Your task to perform on an android device: Search for "amazon basics triple a" on target.com, select the first entry, and add it to the cart. Image 0: 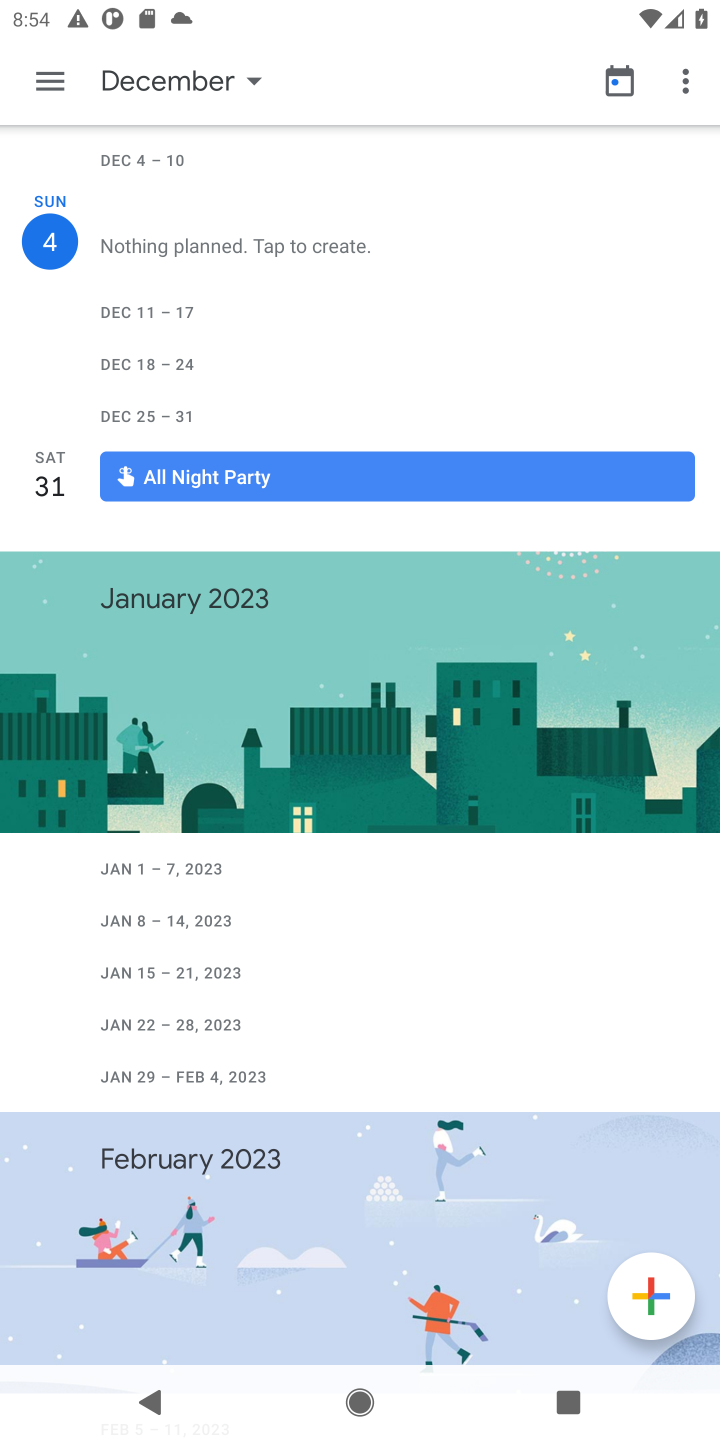
Step 0: press home button
Your task to perform on an android device: Search for "amazon basics triple a" on target.com, select the first entry, and add it to the cart. Image 1: 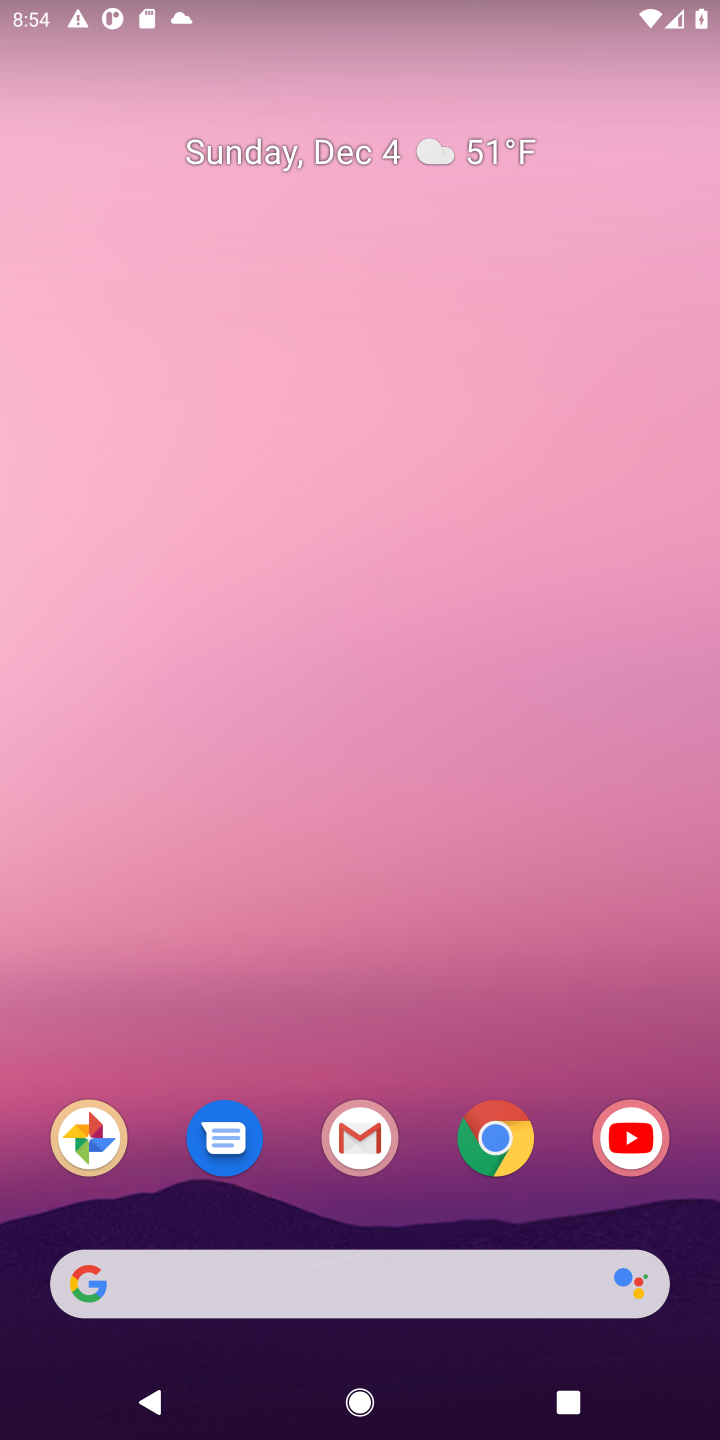
Step 1: click (507, 1135)
Your task to perform on an android device: Search for "amazon basics triple a" on target.com, select the first entry, and add it to the cart. Image 2: 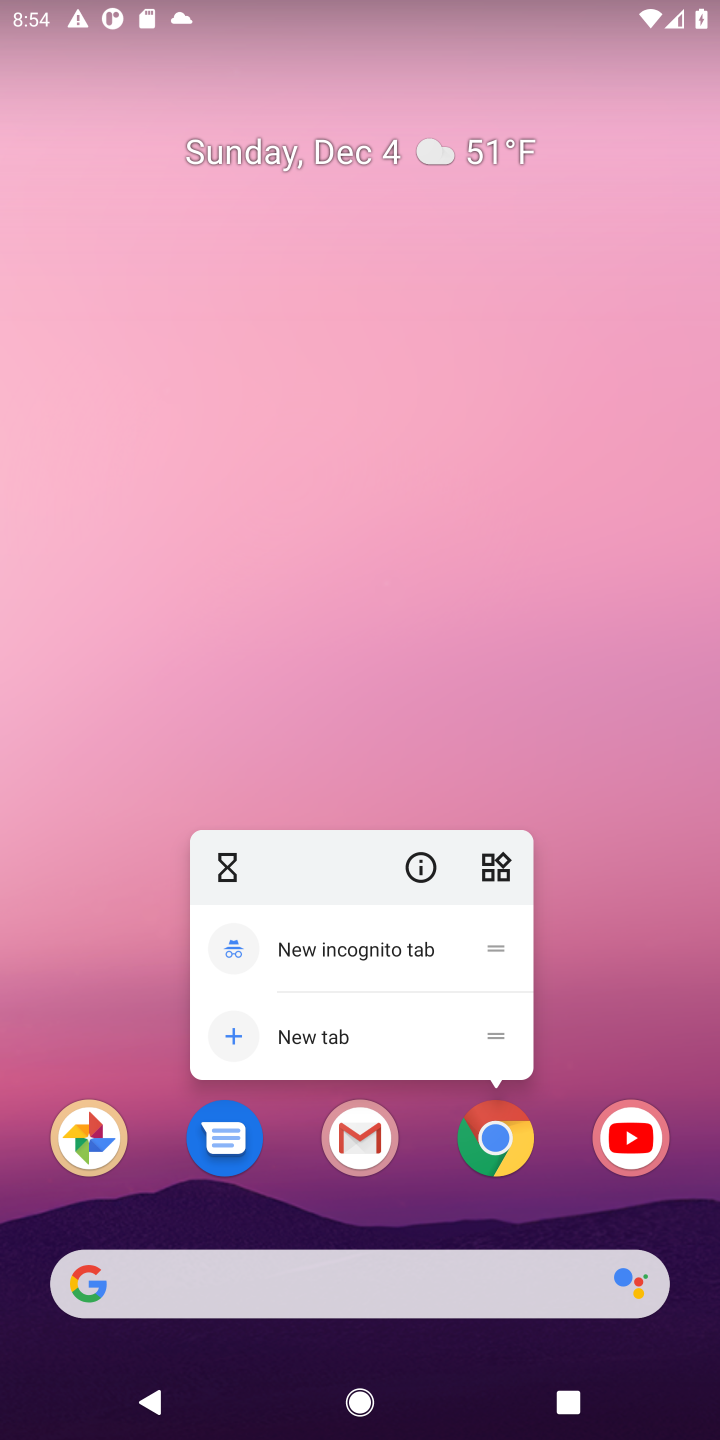
Step 2: click (507, 1135)
Your task to perform on an android device: Search for "amazon basics triple a" on target.com, select the first entry, and add it to the cart. Image 3: 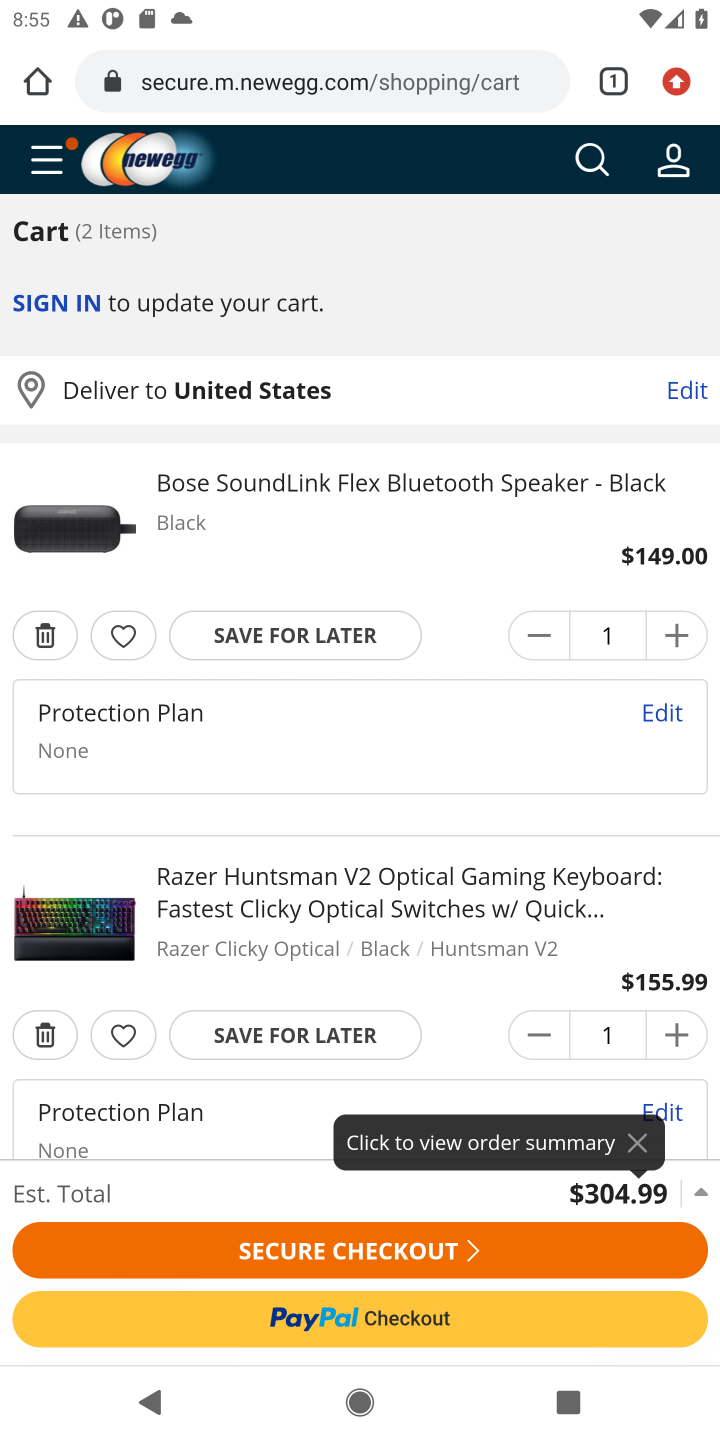
Step 3: click (378, 89)
Your task to perform on an android device: Search for "amazon basics triple a" on target.com, select the first entry, and add it to the cart. Image 4: 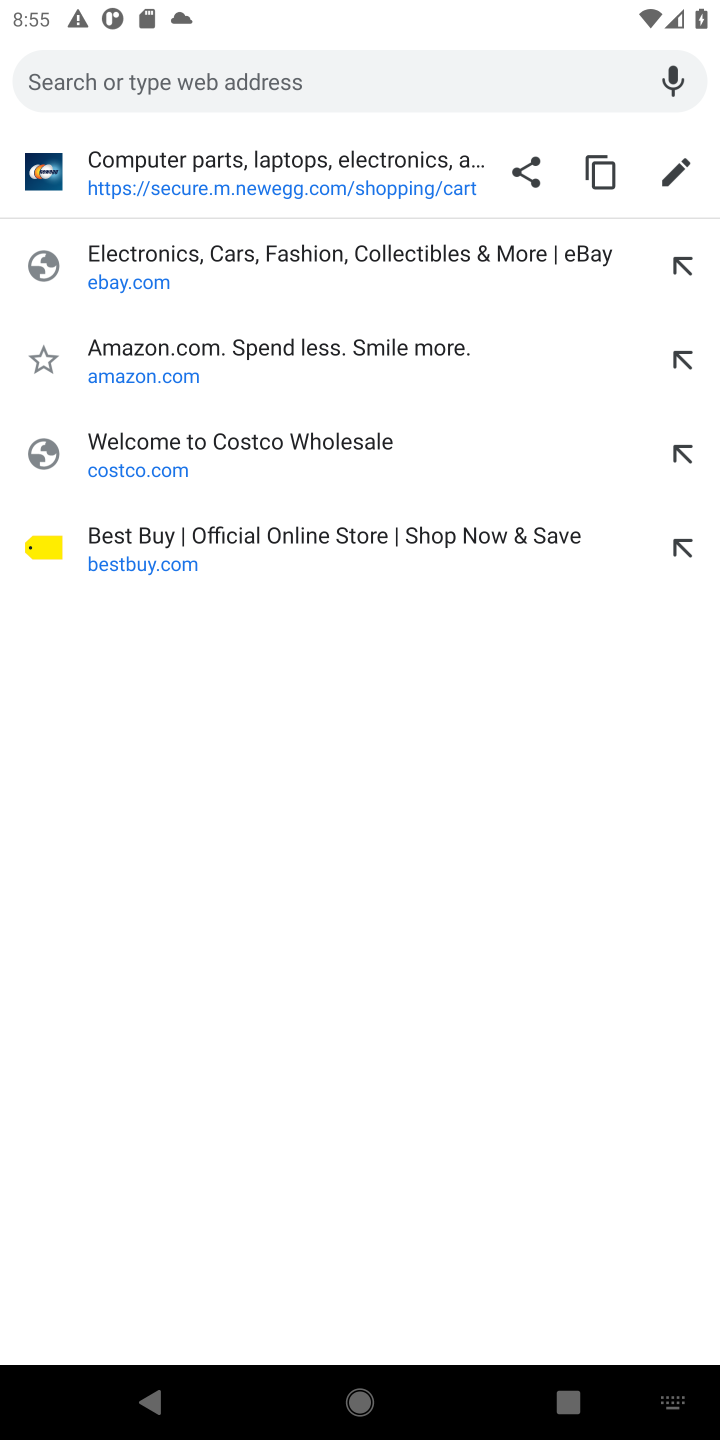
Step 4: press enter
Your task to perform on an android device: Search for "amazon basics triple a" on target.com, select the first entry, and add it to the cart. Image 5: 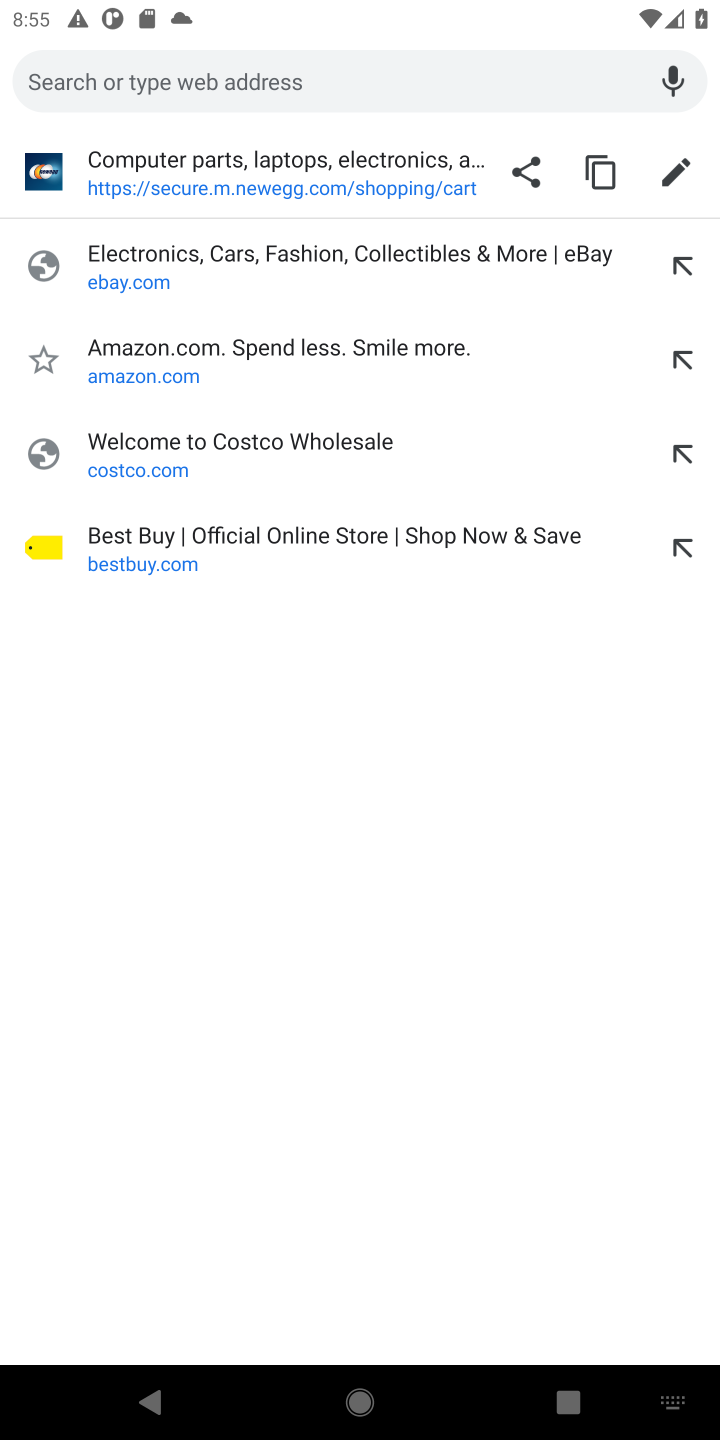
Step 5: type "target.com"
Your task to perform on an android device: Search for "amazon basics triple a" on target.com, select the first entry, and add it to the cart. Image 6: 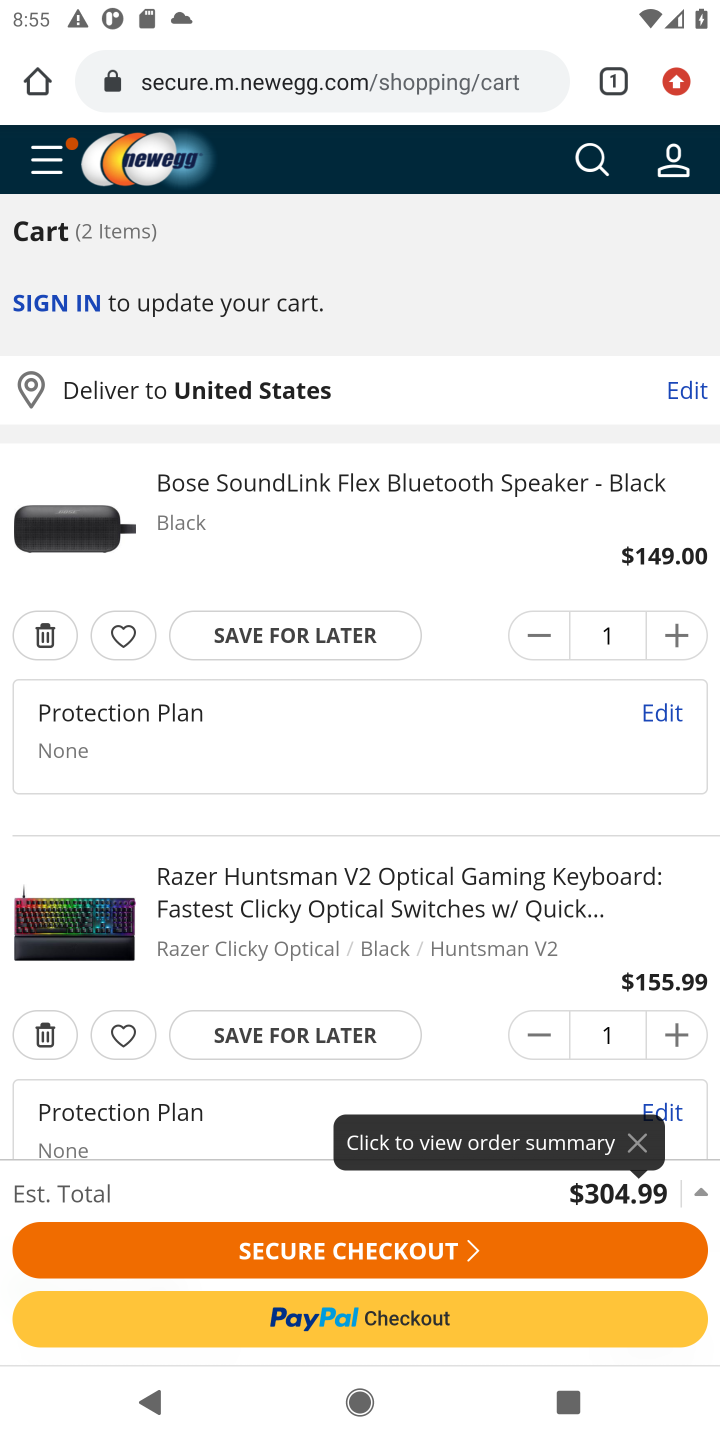
Step 6: click (314, 69)
Your task to perform on an android device: Search for "amazon basics triple a" on target.com, select the first entry, and add it to the cart. Image 7: 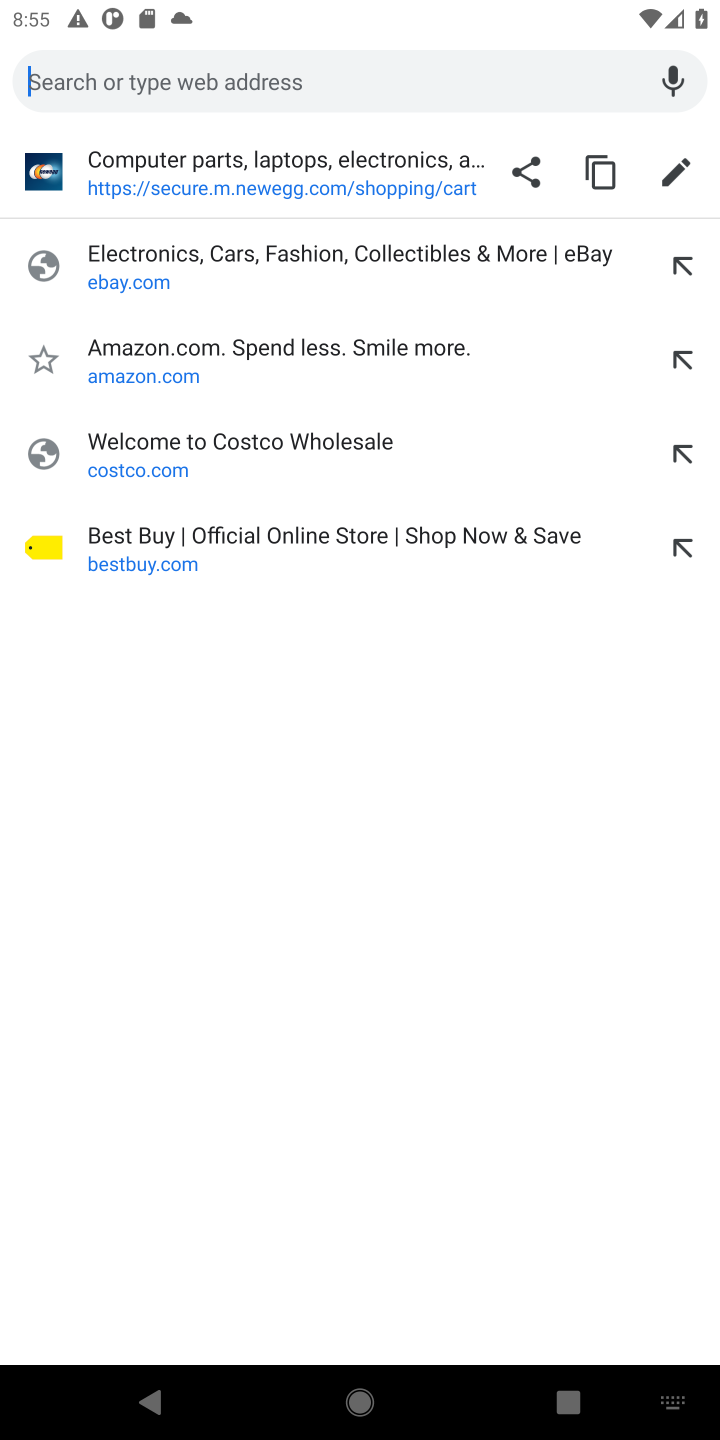
Step 7: type "target.com"
Your task to perform on an android device: Search for "amazon basics triple a" on target.com, select the first entry, and add it to the cart. Image 8: 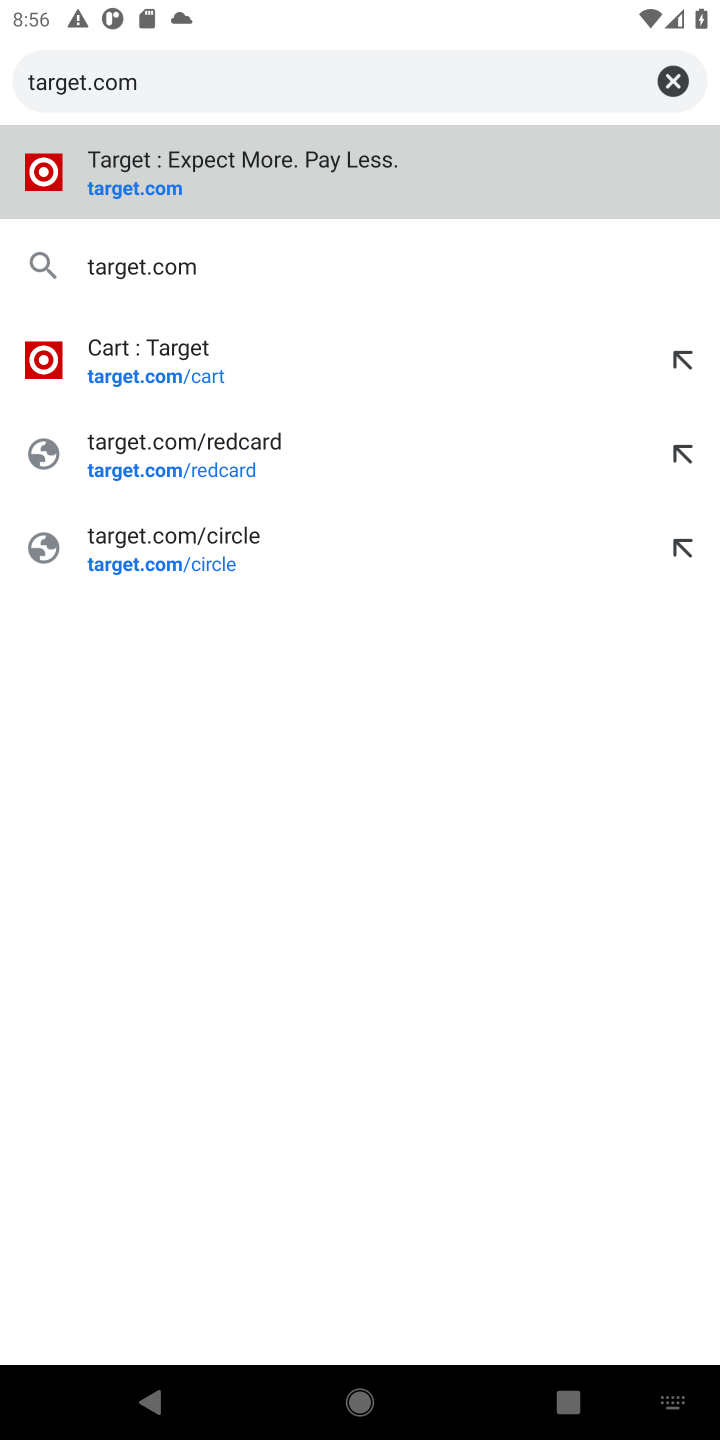
Step 8: press enter
Your task to perform on an android device: Search for "amazon basics triple a" on target.com, select the first entry, and add it to the cart. Image 9: 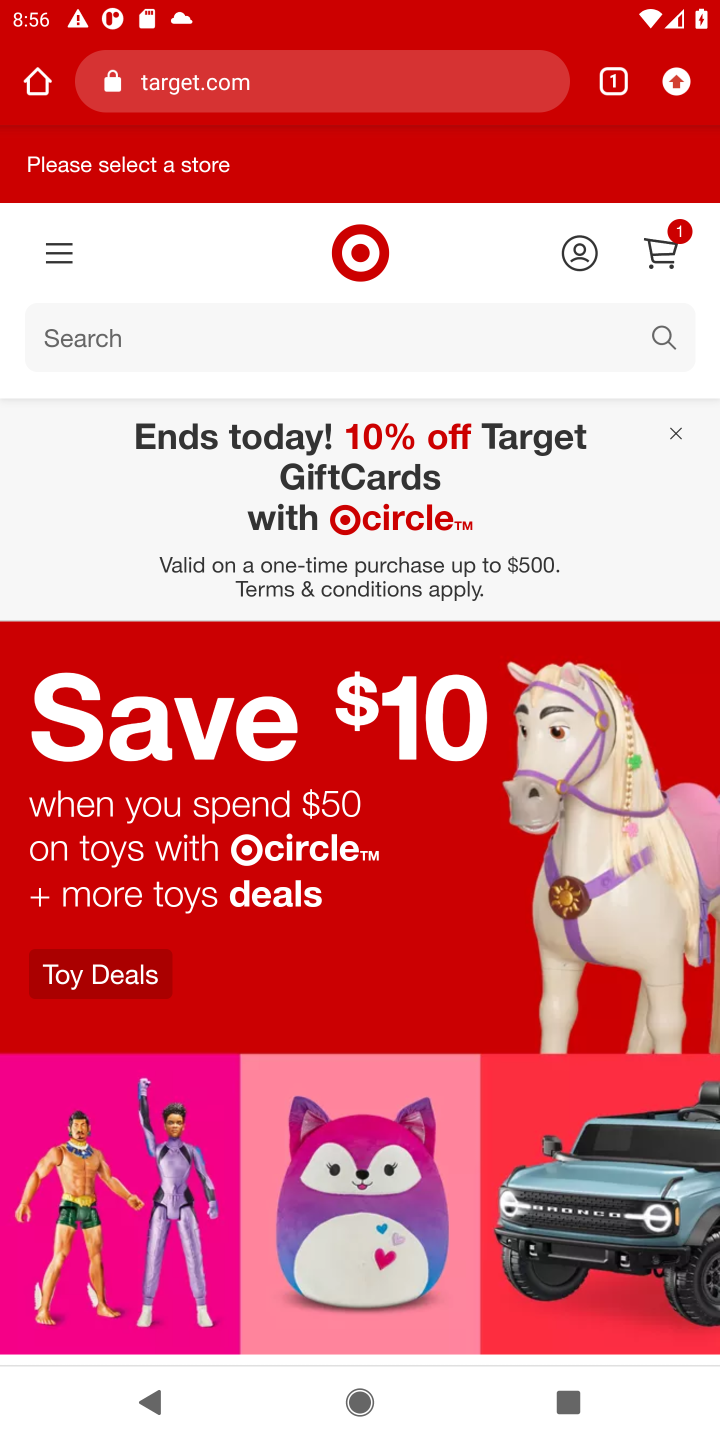
Step 9: click (661, 329)
Your task to perform on an android device: Search for "amazon basics triple a" on target.com, select the first entry, and add it to the cart. Image 10: 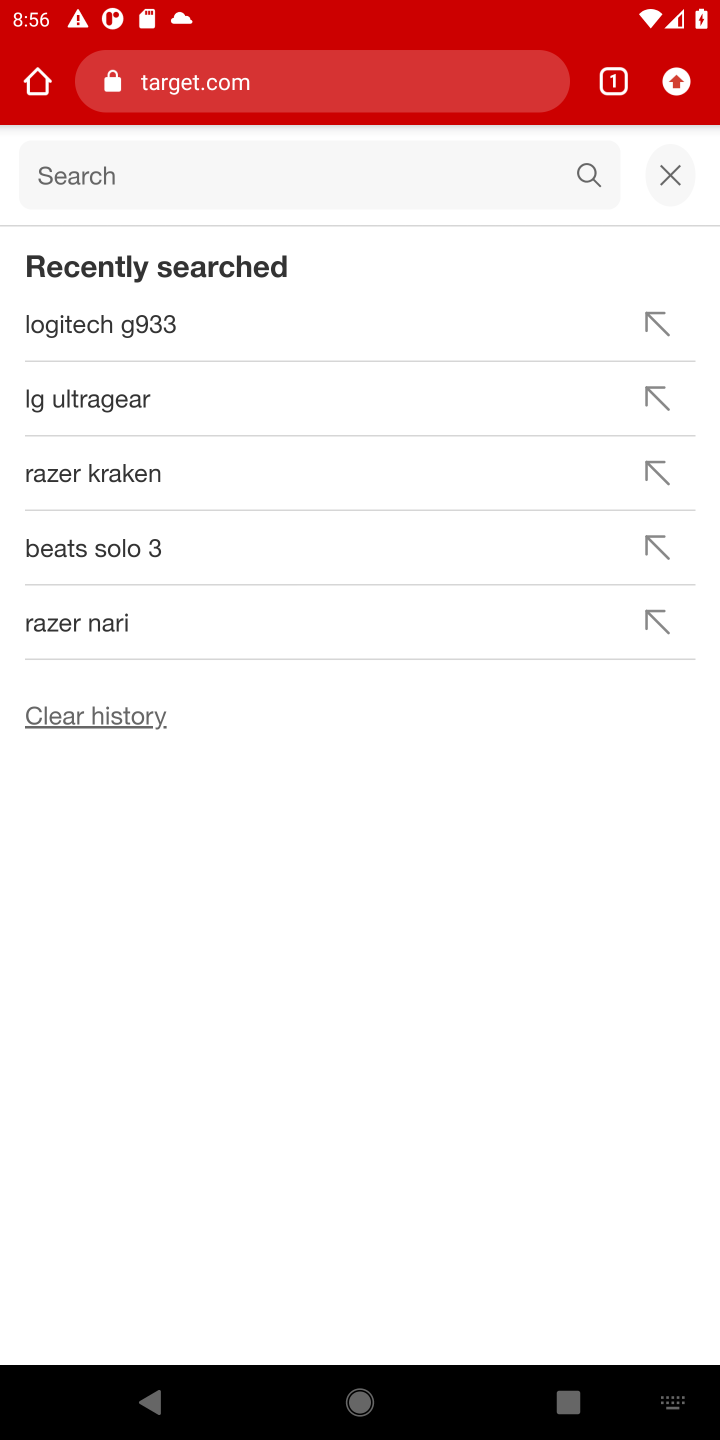
Step 10: type "amazon basics triple a"
Your task to perform on an android device: Search for "amazon basics triple a" on target.com, select the first entry, and add it to the cart. Image 11: 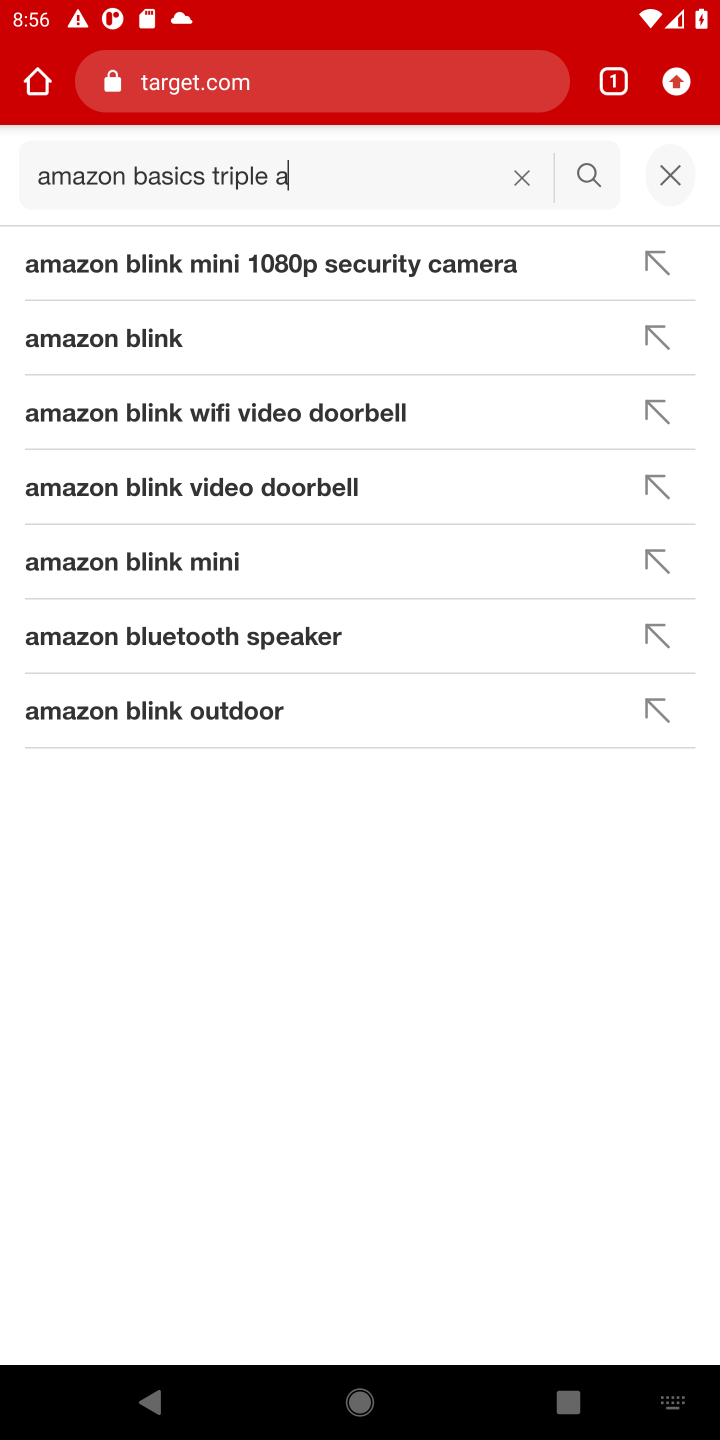
Step 11: press enter
Your task to perform on an android device: Search for "amazon basics triple a" on target.com, select the first entry, and add it to the cart. Image 12: 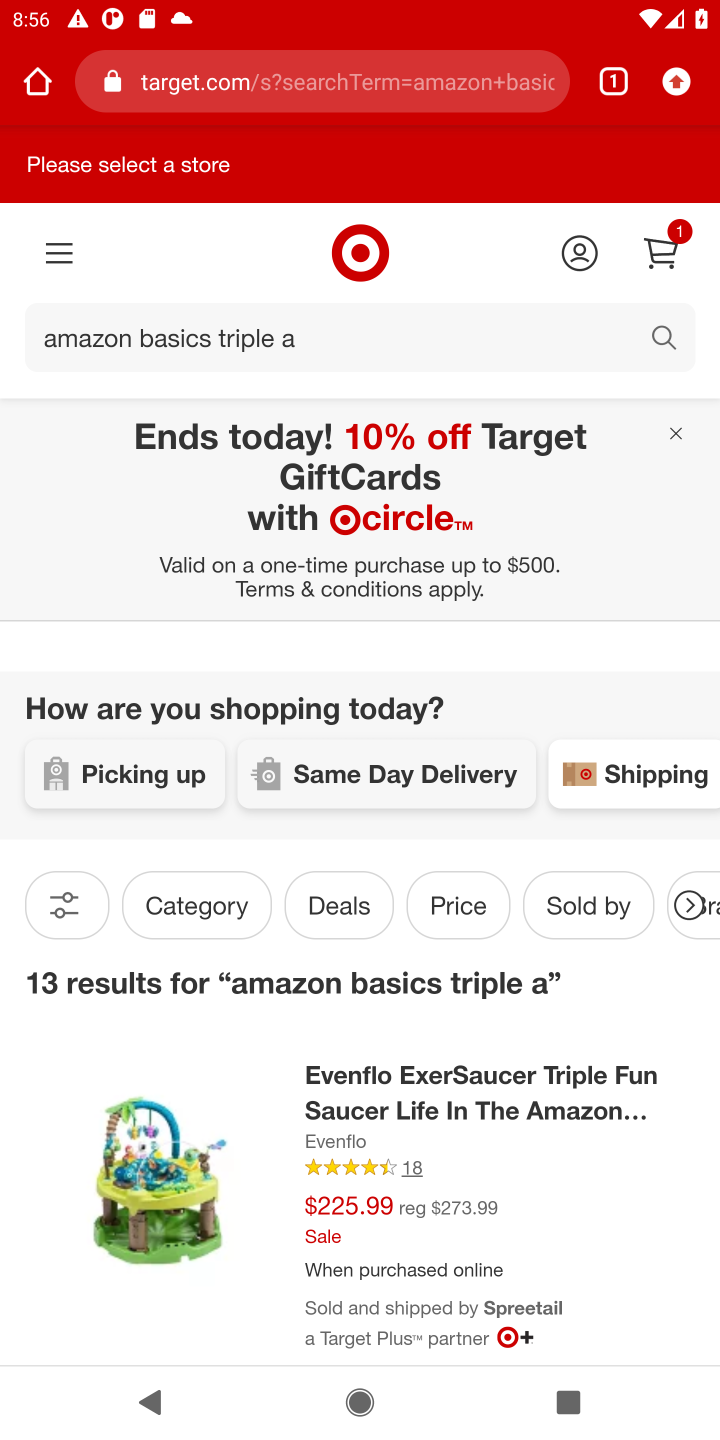
Step 12: task complete